Your task to perform on an android device: Open CNN.com Image 0: 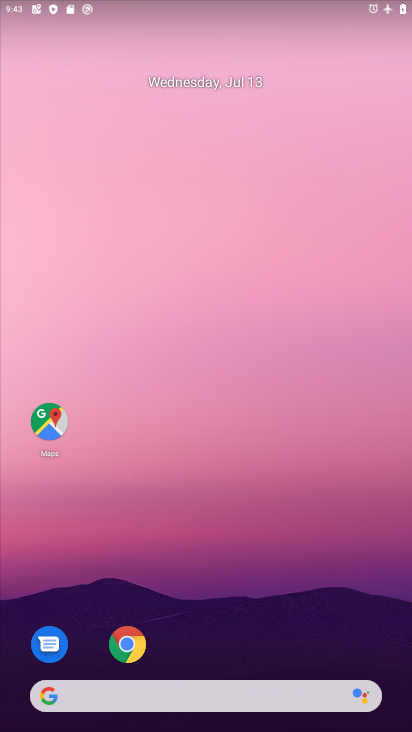
Step 0: drag from (225, 731) to (234, 123)
Your task to perform on an android device: Open CNN.com Image 1: 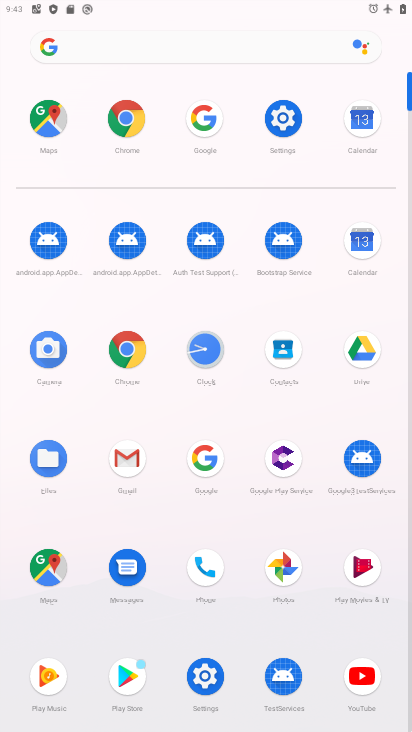
Step 1: click (127, 114)
Your task to perform on an android device: Open CNN.com Image 2: 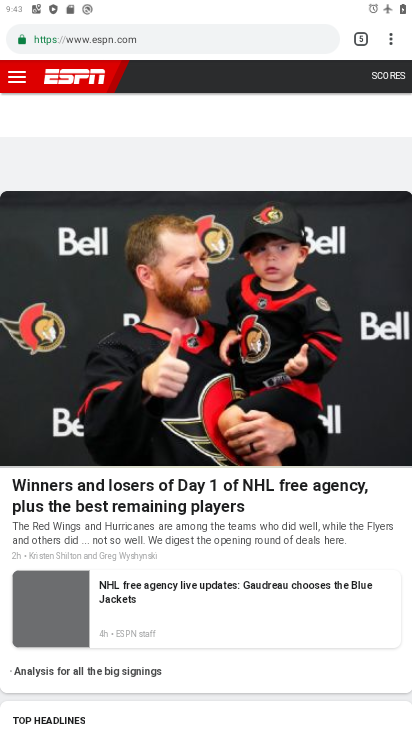
Step 2: click (390, 39)
Your task to perform on an android device: Open CNN.com Image 3: 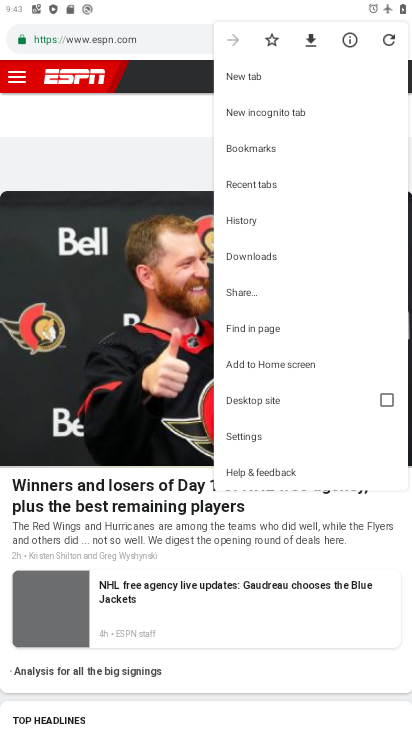
Step 3: click (244, 71)
Your task to perform on an android device: Open CNN.com Image 4: 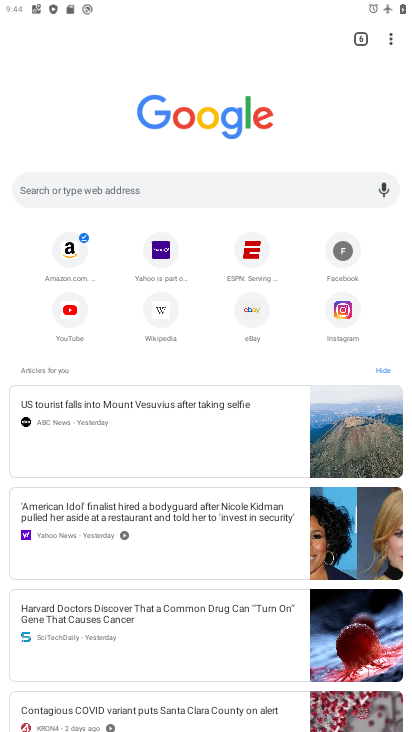
Step 4: click (203, 187)
Your task to perform on an android device: Open CNN.com Image 5: 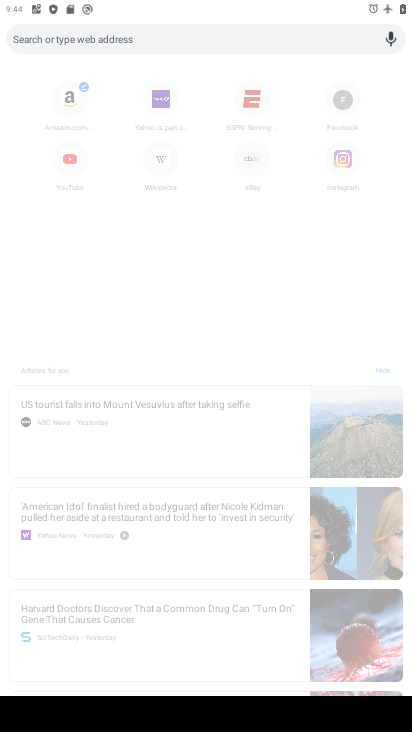
Step 5: type "CNN.com"
Your task to perform on an android device: Open CNN.com Image 6: 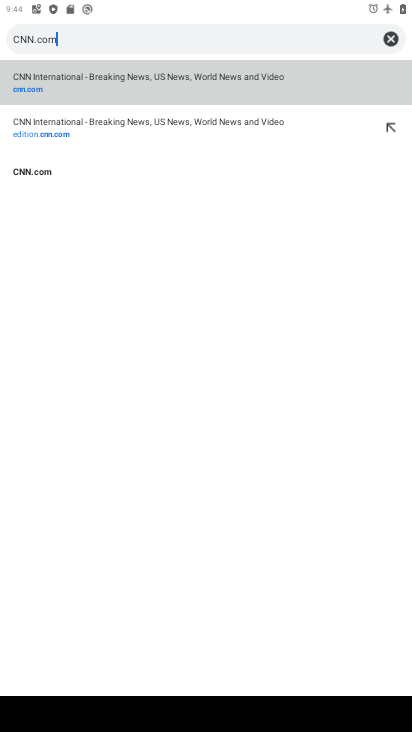
Step 6: type ""
Your task to perform on an android device: Open CNN.com Image 7: 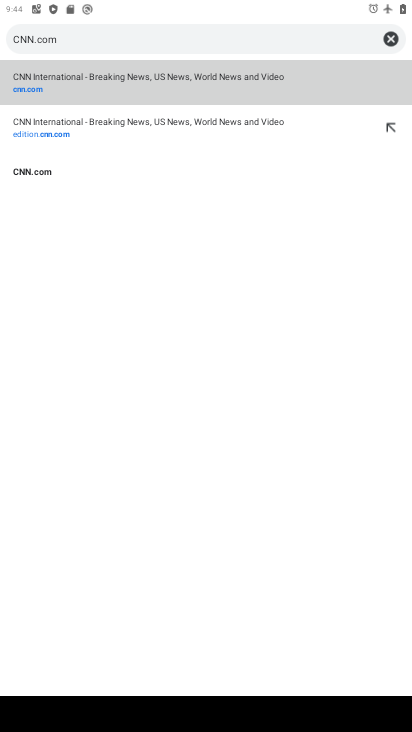
Step 7: click (94, 71)
Your task to perform on an android device: Open CNN.com Image 8: 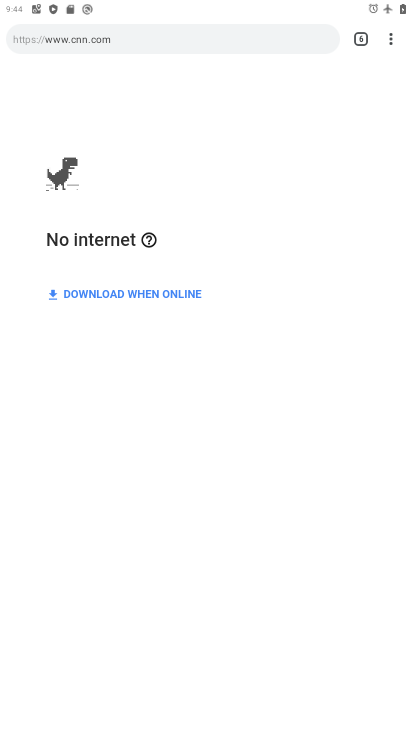
Step 8: task complete